Your task to perform on an android device: clear history in the chrome app Image 0: 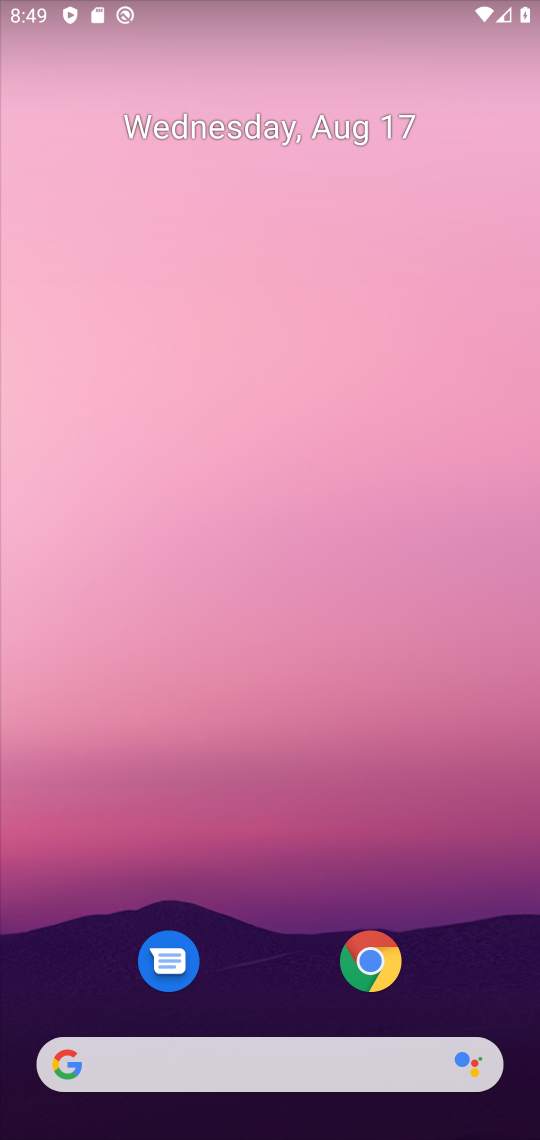
Step 0: drag from (262, 1009) to (342, 77)
Your task to perform on an android device: clear history in the chrome app Image 1: 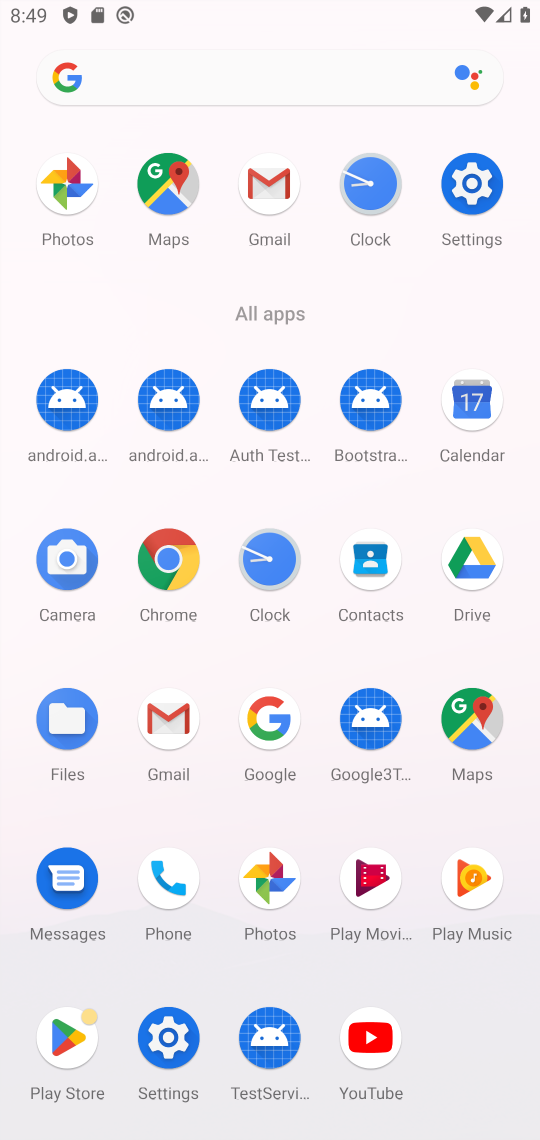
Step 1: click (168, 559)
Your task to perform on an android device: clear history in the chrome app Image 2: 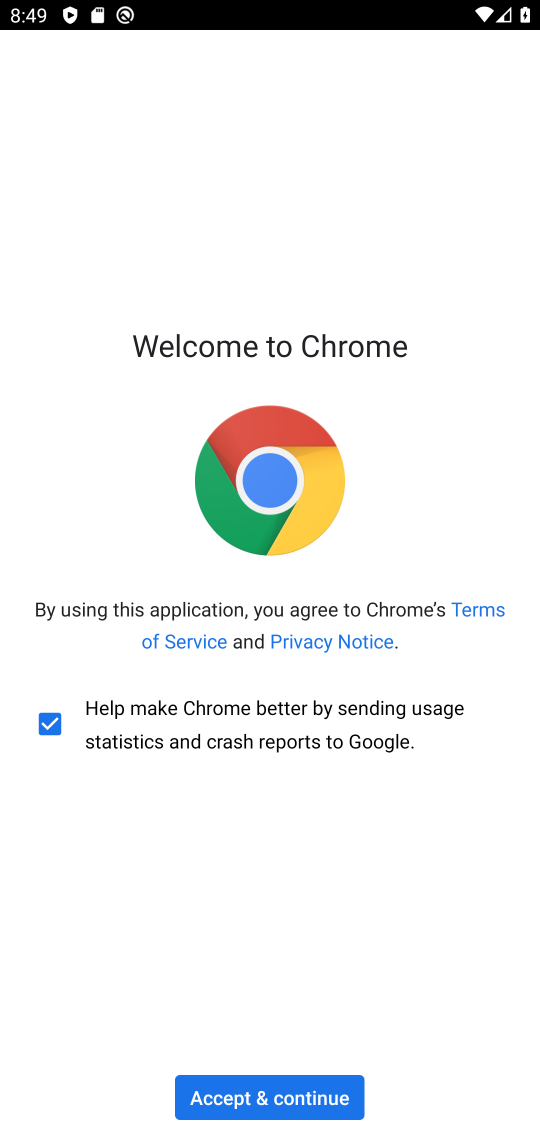
Step 2: click (283, 1107)
Your task to perform on an android device: clear history in the chrome app Image 3: 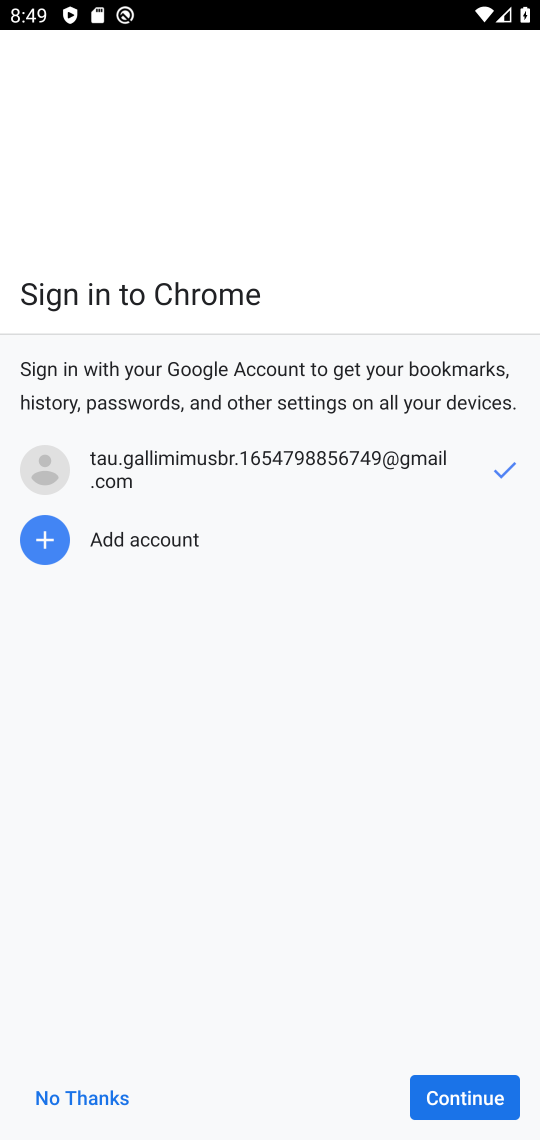
Step 3: click (421, 1094)
Your task to perform on an android device: clear history in the chrome app Image 4: 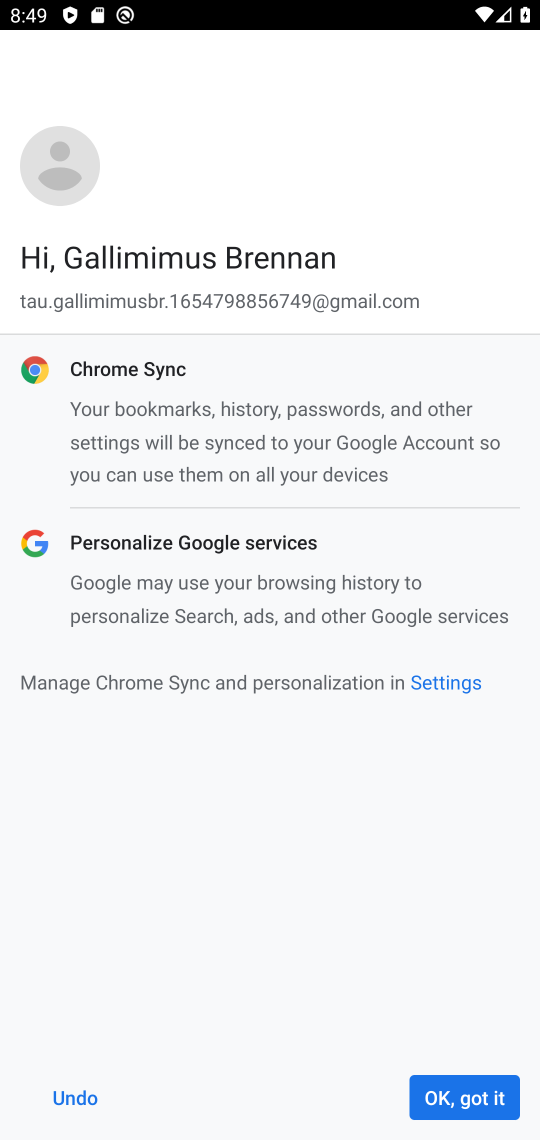
Step 4: click (465, 1100)
Your task to perform on an android device: clear history in the chrome app Image 5: 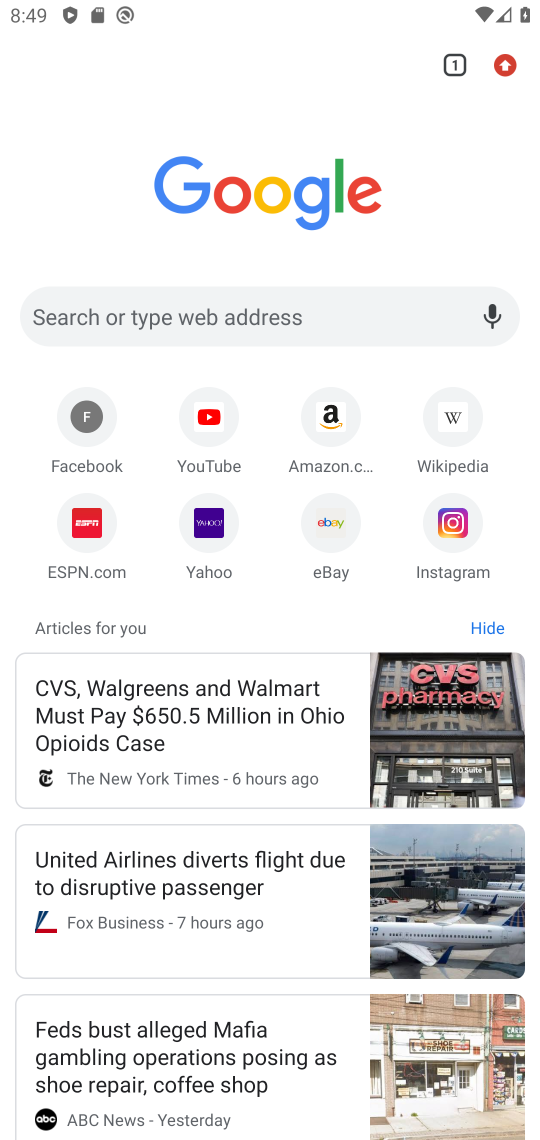
Step 5: drag from (531, 57) to (248, 451)
Your task to perform on an android device: clear history in the chrome app Image 6: 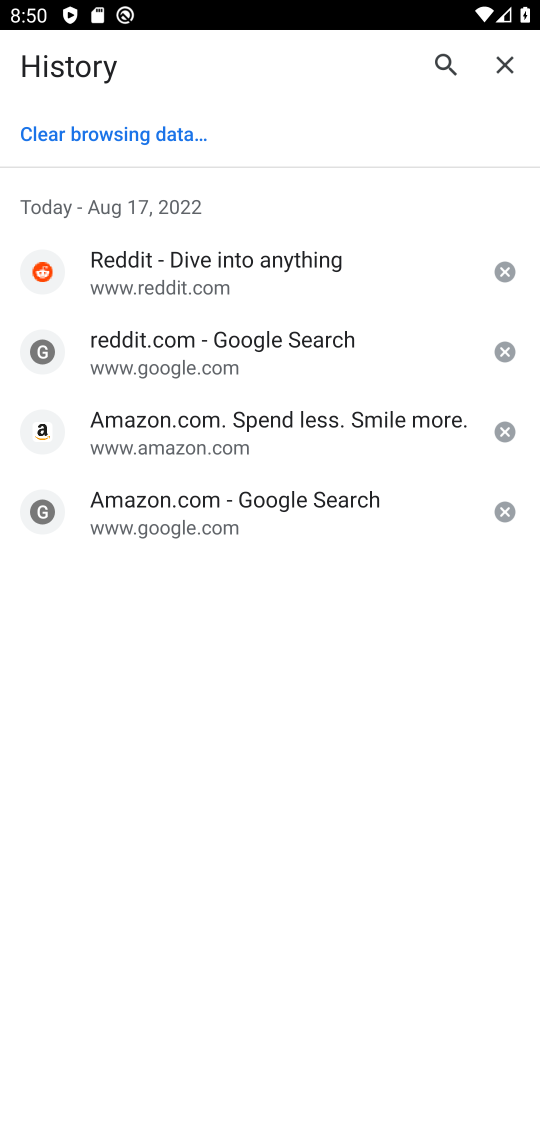
Step 6: click (174, 139)
Your task to perform on an android device: clear history in the chrome app Image 7: 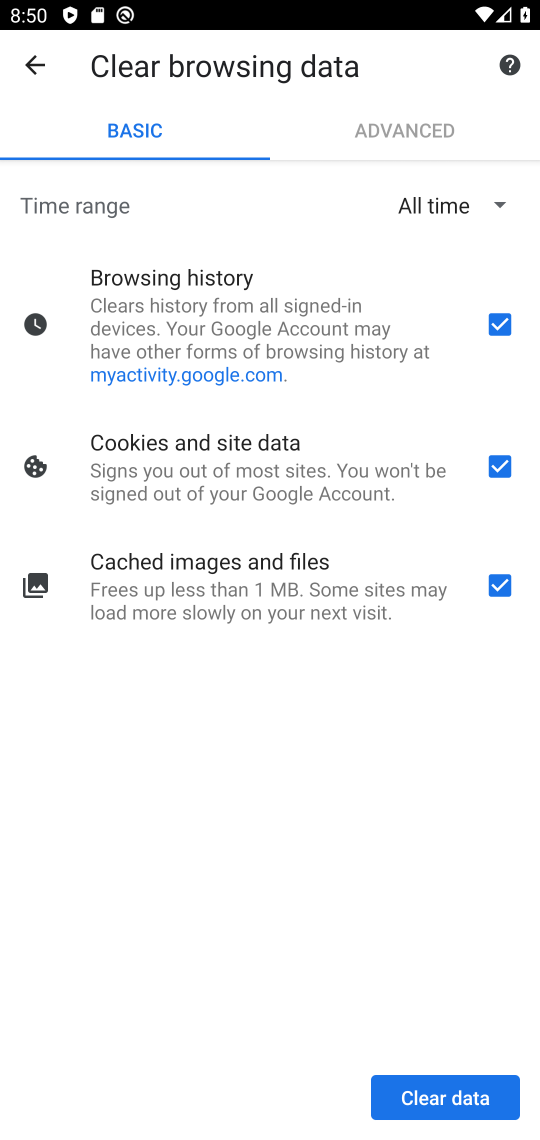
Step 7: click (489, 1106)
Your task to perform on an android device: clear history in the chrome app Image 8: 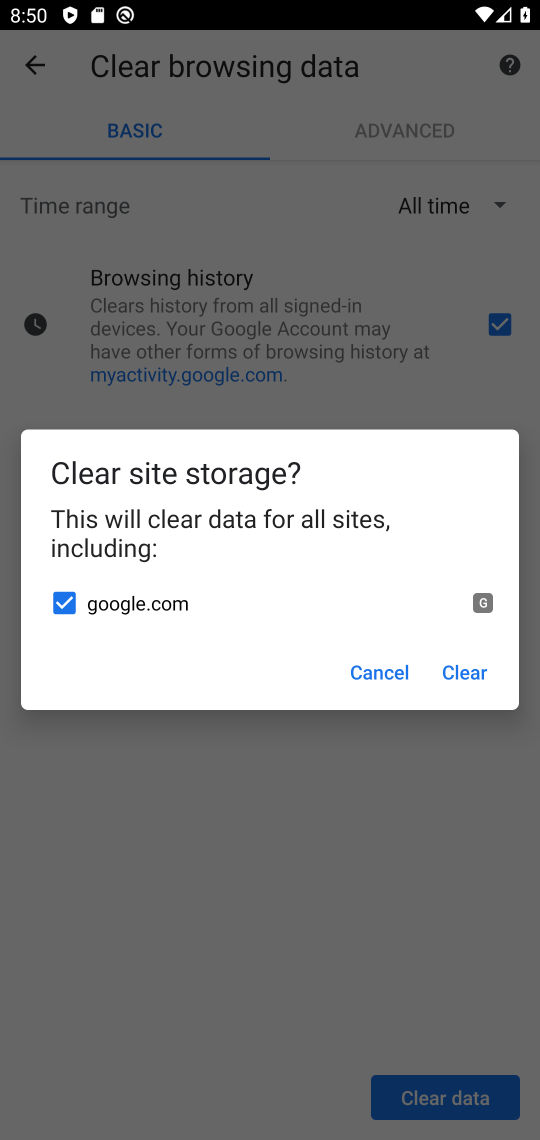
Step 8: click (462, 680)
Your task to perform on an android device: clear history in the chrome app Image 9: 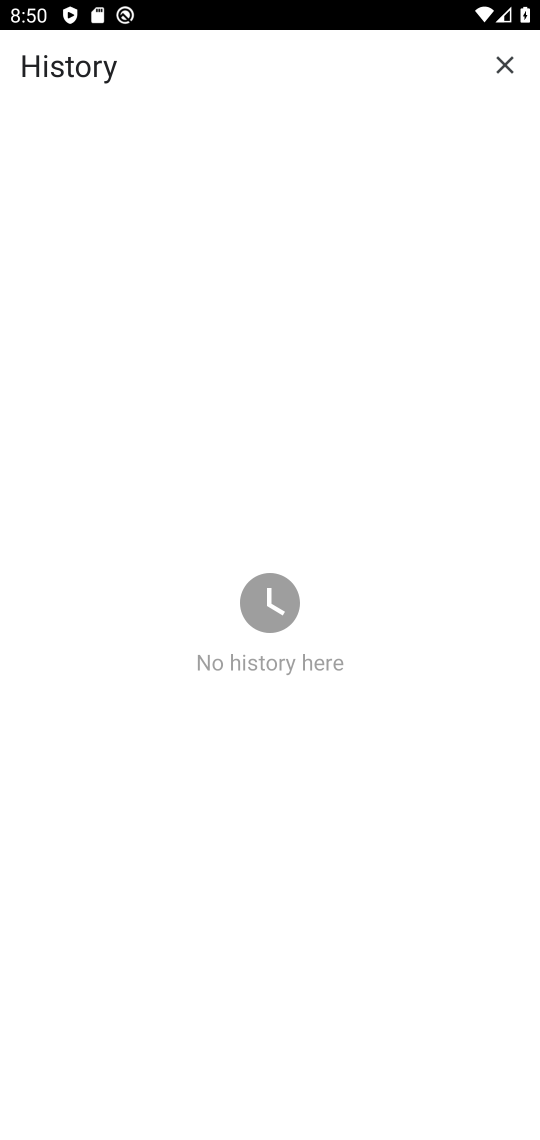
Step 9: task complete